Your task to perform on an android device: Search for vegetarian restaurants on Maps Image 0: 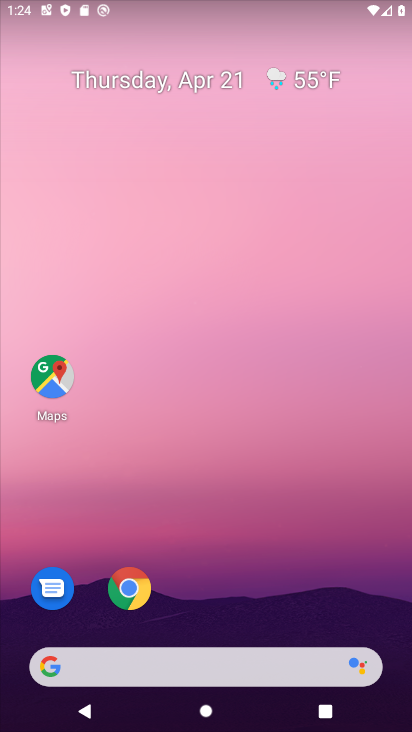
Step 0: click (66, 367)
Your task to perform on an android device: Search for vegetarian restaurants on Maps Image 1: 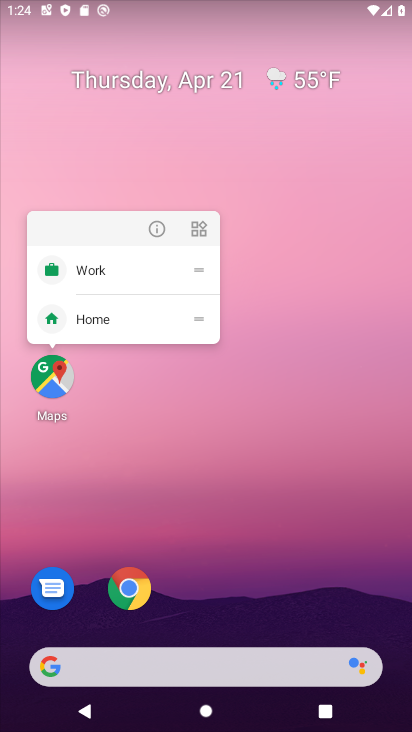
Step 1: click (57, 373)
Your task to perform on an android device: Search for vegetarian restaurants on Maps Image 2: 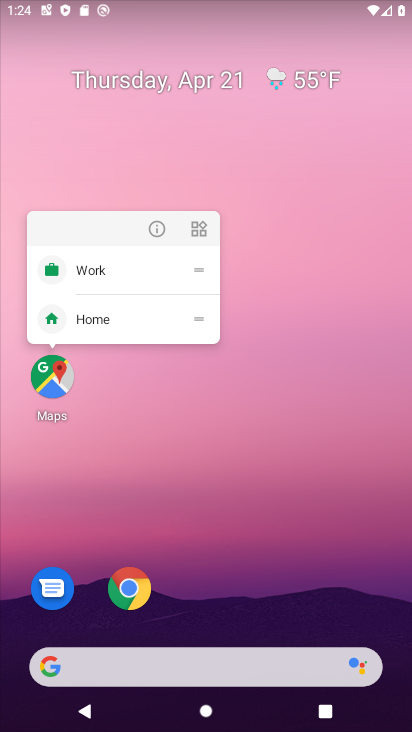
Step 2: click (48, 379)
Your task to perform on an android device: Search for vegetarian restaurants on Maps Image 3: 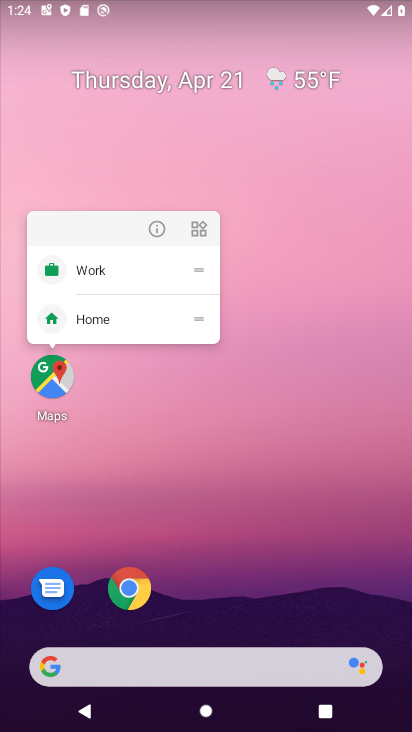
Step 3: click (57, 372)
Your task to perform on an android device: Search for vegetarian restaurants on Maps Image 4: 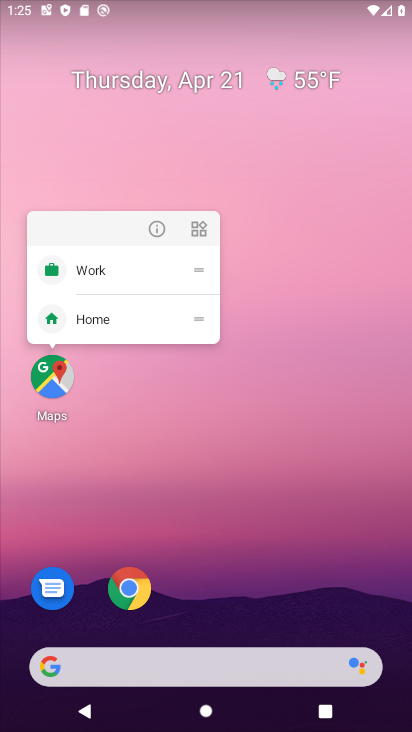
Step 4: click (57, 370)
Your task to perform on an android device: Search for vegetarian restaurants on Maps Image 5: 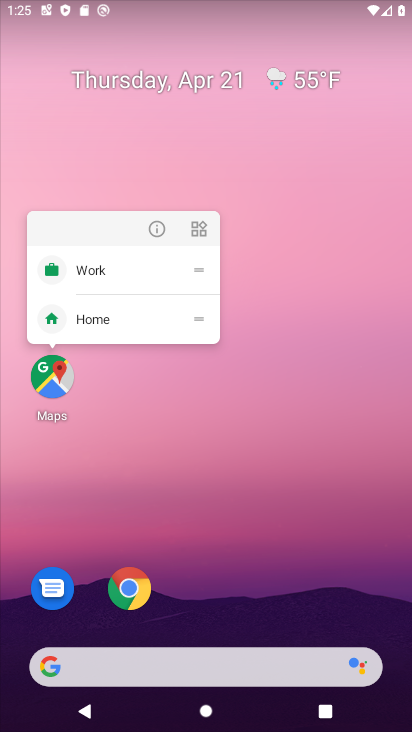
Step 5: click (62, 375)
Your task to perform on an android device: Search for vegetarian restaurants on Maps Image 6: 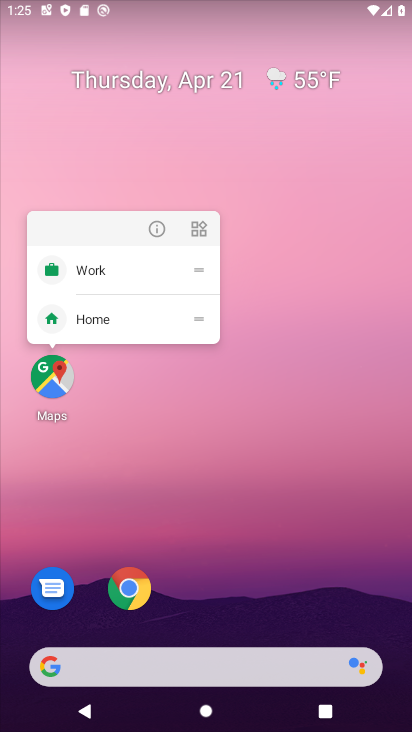
Step 6: click (53, 374)
Your task to perform on an android device: Search for vegetarian restaurants on Maps Image 7: 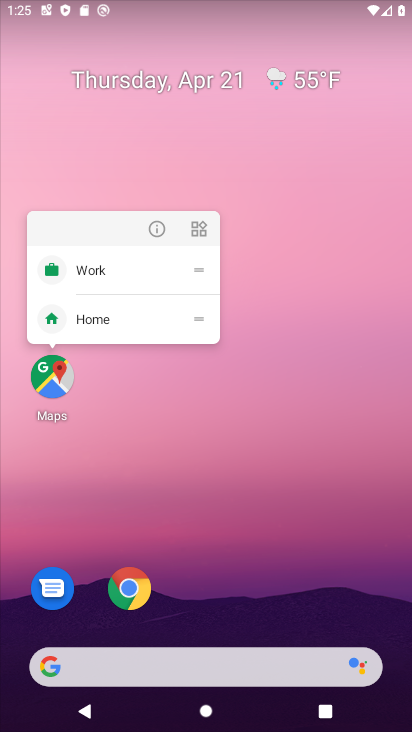
Step 7: click (62, 369)
Your task to perform on an android device: Search for vegetarian restaurants on Maps Image 8: 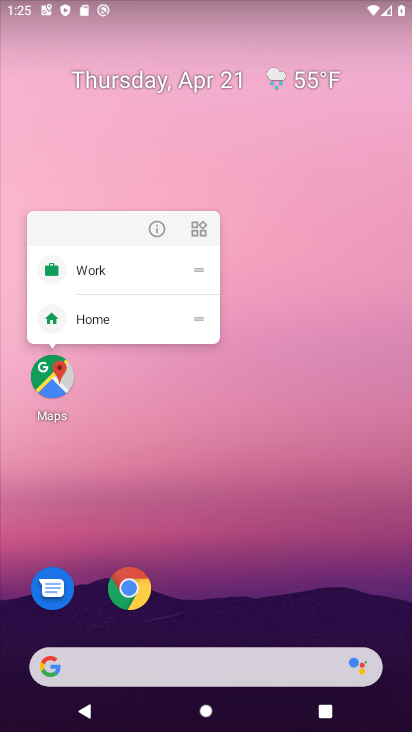
Step 8: click (62, 376)
Your task to perform on an android device: Search for vegetarian restaurants on Maps Image 9: 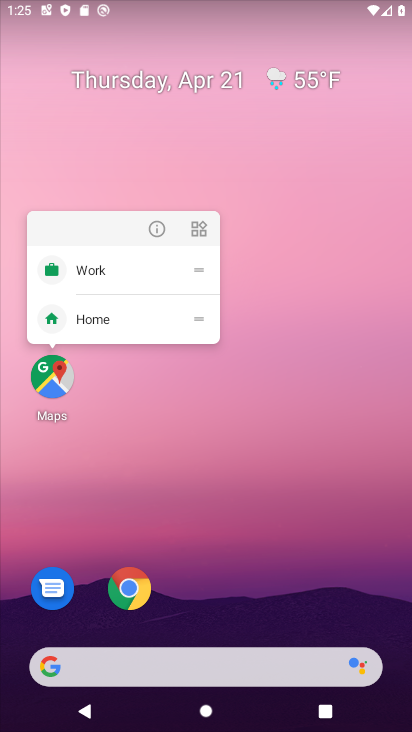
Step 9: click (64, 374)
Your task to perform on an android device: Search for vegetarian restaurants on Maps Image 10: 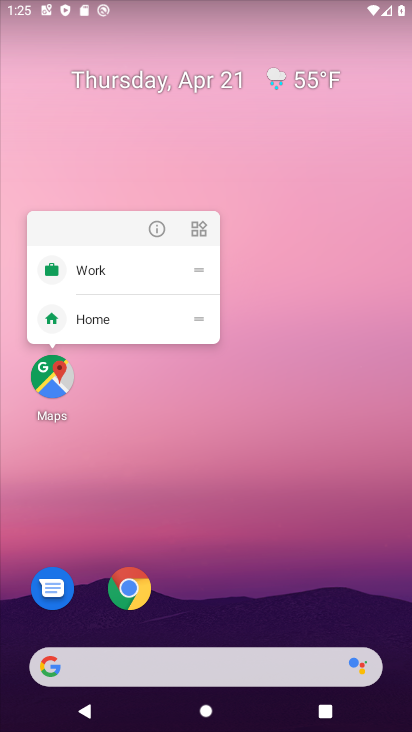
Step 10: click (63, 374)
Your task to perform on an android device: Search for vegetarian restaurants on Maps Image 11: 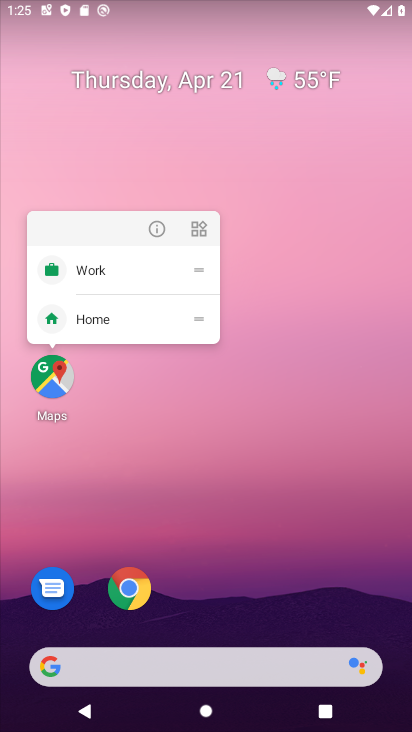
Step 11: click (64, 373)
Your task to perform on an android device: Search for vegetarian restaurants on Maps Image 12: 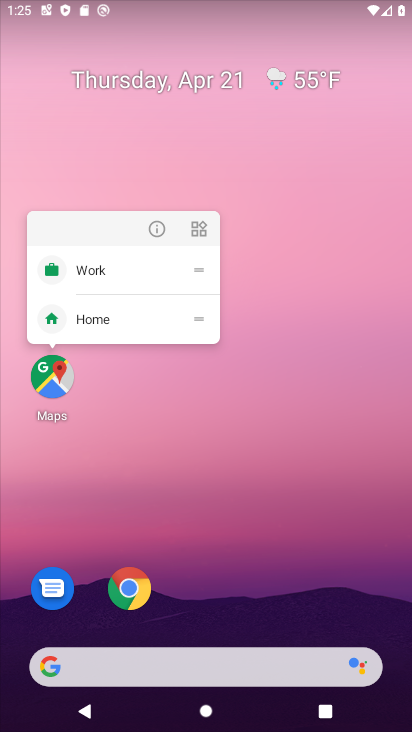
Step 12: click (61, 375)
Your task to perform on an android device: Search for vegetarian restaurants on Maps Image 13: 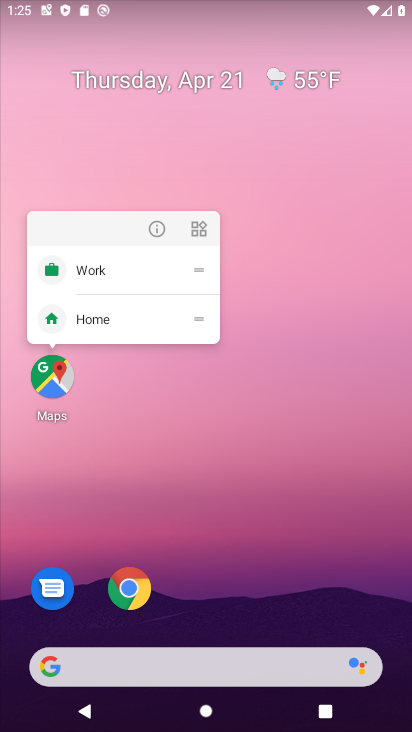
Step 13: click (64, 381)
Your task to perform on an android device: Search for vegetarian restaurants on Maps Image 14: 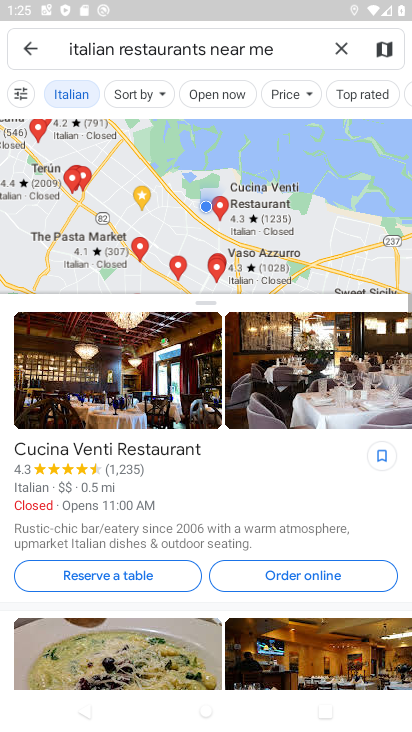
Step 14: click (335, 48)
Your task to perform on an android device: Search for vegetarian restaurants on Maps Image 15: 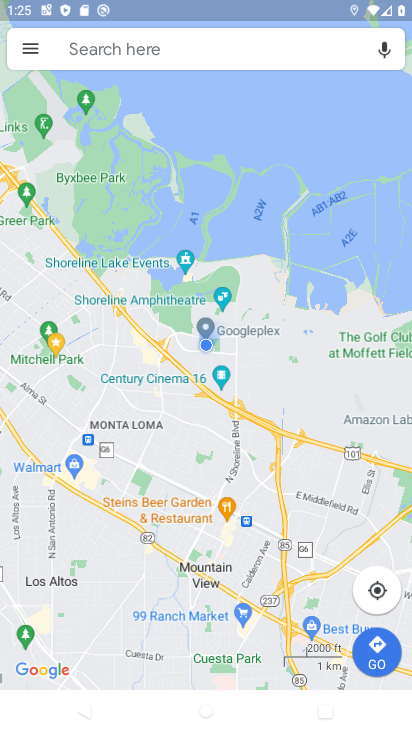
Step 15: click (218, 57)
Your task to perform on an android device: Search for vegetarian restaurants on Maps Image 16: 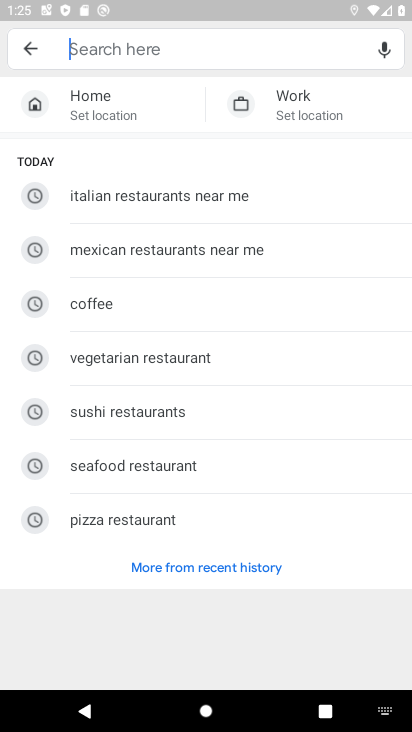
Step 16: type "vegetarian restaurants"
Your task to perform on an android device: Search for vegetarian restaurants on Maps Image 17: 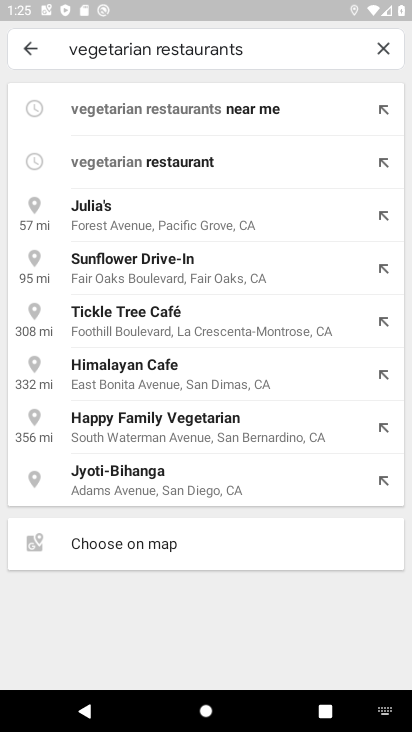
Step 17: click (216, 117)
Your task to perform on an android device: Search for vegetarian restaurants on Maps Image 18: 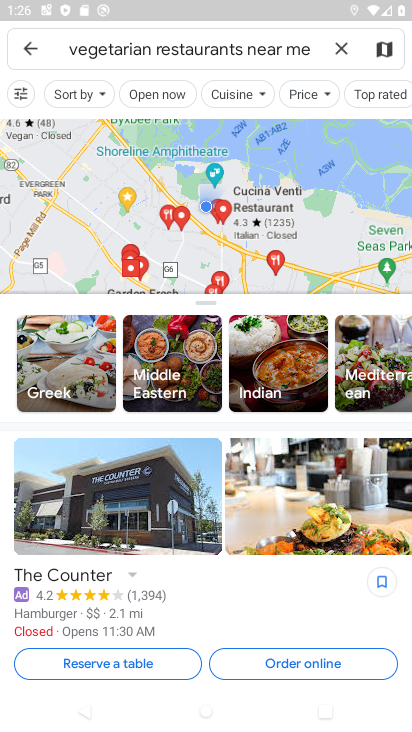
Step 18: task complete